Your task to perform on an android device: Show me the alarms in the clock app Image 0: 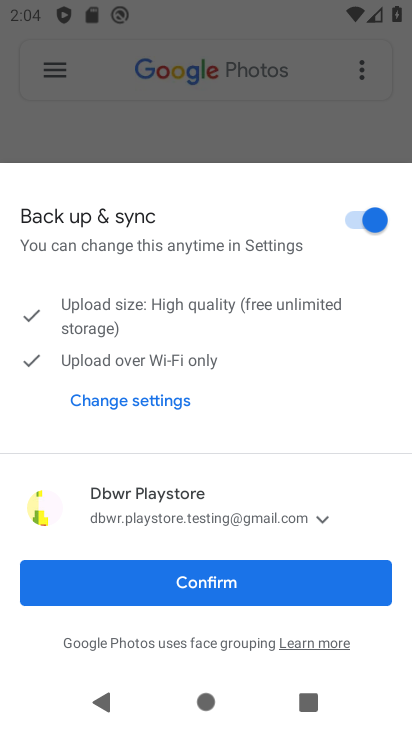
Step 0: press back button
Your task to perform on an android device: Show me the alarms in the clock app Image 1: 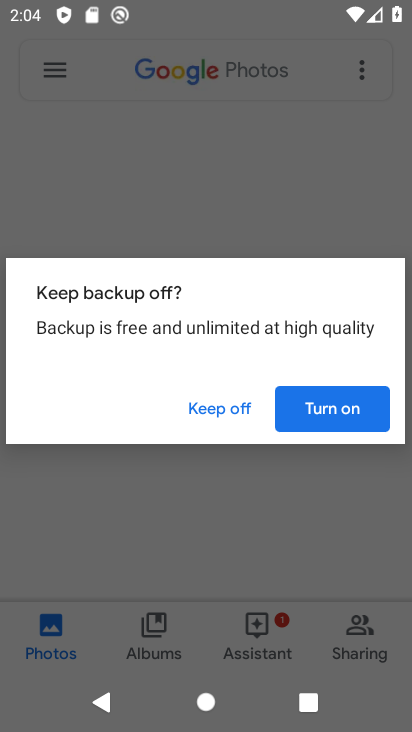
Step 1: press back button
Your task to perform on an android device: Show me the alarms in the clock app Image 2: 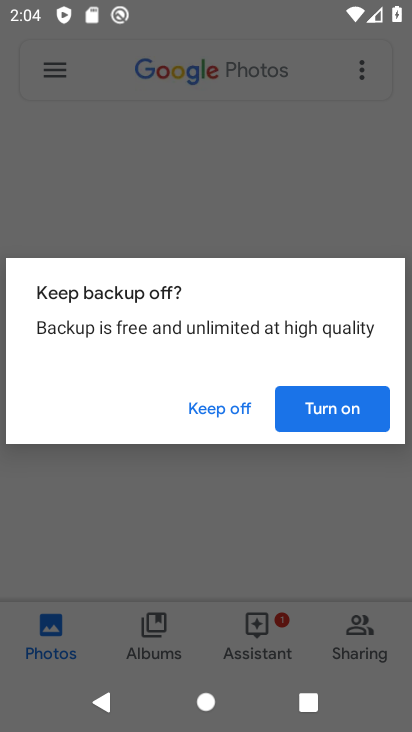
Step 2: press back button
Your task to perform on an android device: Show me the alarms in the clock app Image 3: 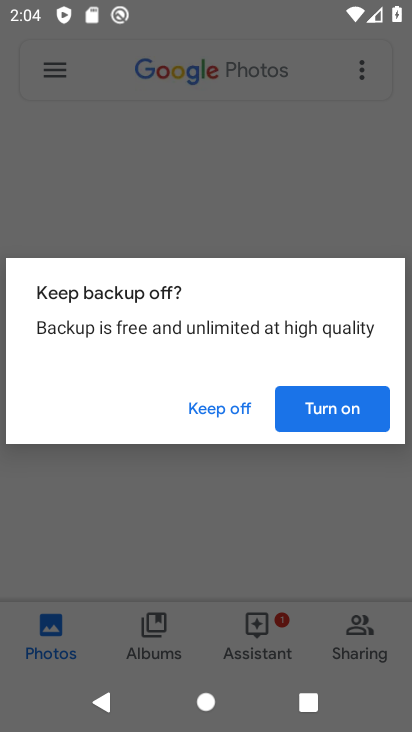
Step 3: press home button
Your task to perform on an android device: Show me the alarms in the clock app Image 4: 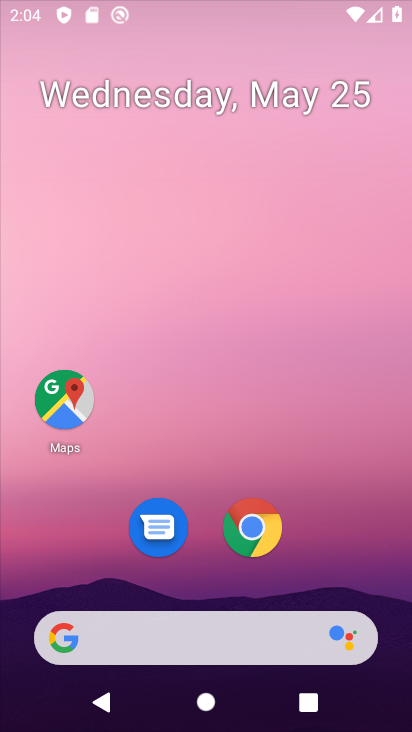
Step 4: drag from (225, 555) to (293, 2)
Your task to perform on an android device: Show me the alarms in the clock app Image 5: 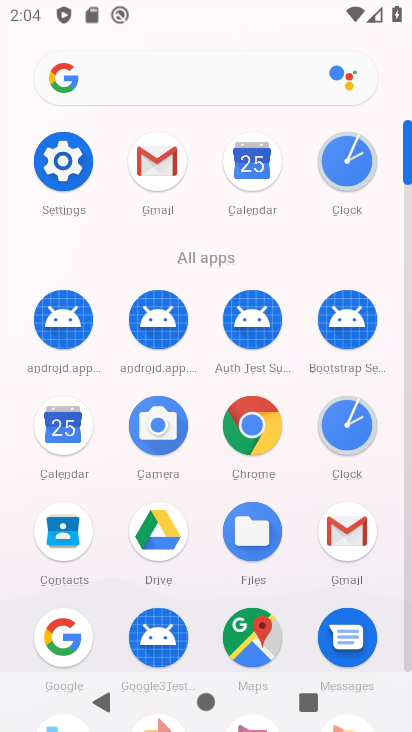
Step 5: click (349, 159)
Your task to perform on an android device: Show me the alarms in the clock app Image 6: 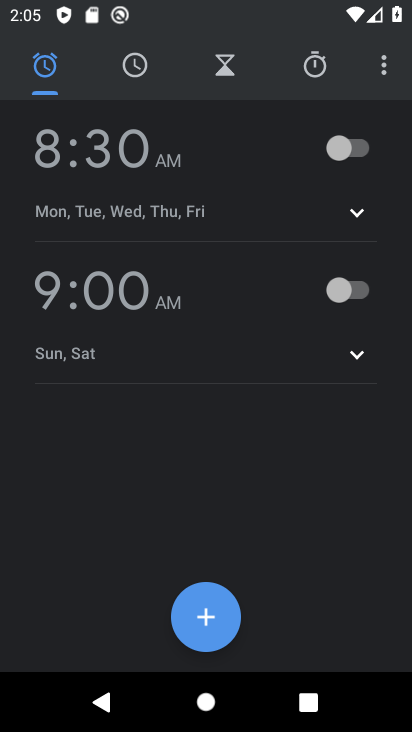
Step 6: task complete